Your task to perform on an android device: Show me recent news Image 0: 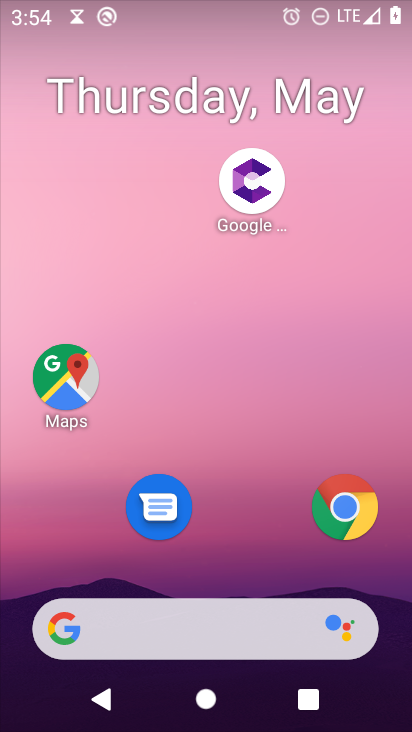
Step 0: press home button
Your task to perform on an android device: Show me recent news Image 1: 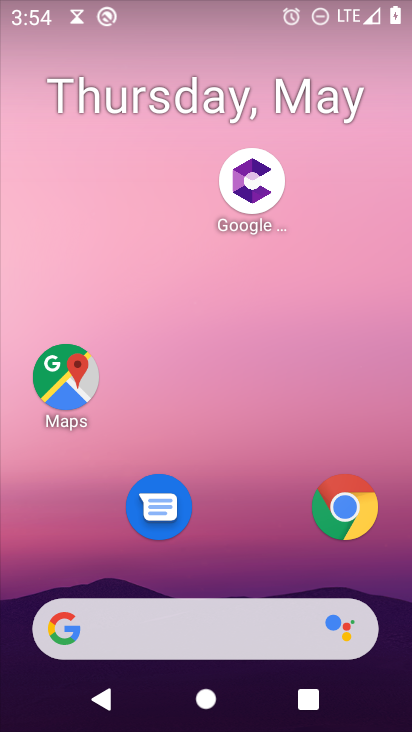
Step 1: click (57, 628)
Your task to perform on an android device: Show me recent news Image 2: 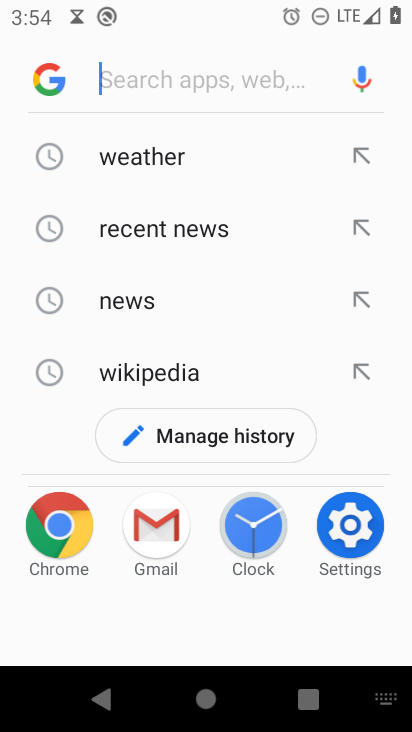
Step 2: click (177, 227)
Your task to perform on an android device: Show me recent news Image 3: 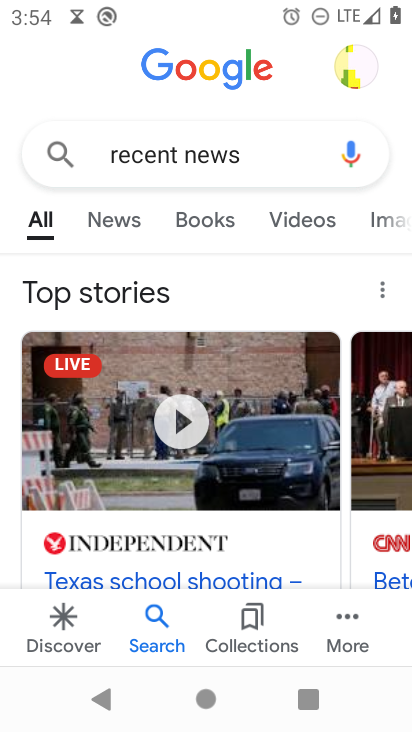
Step 3: task complete